Your task to perform on an android device: turn off priority inbox in the gmail app Image 0: 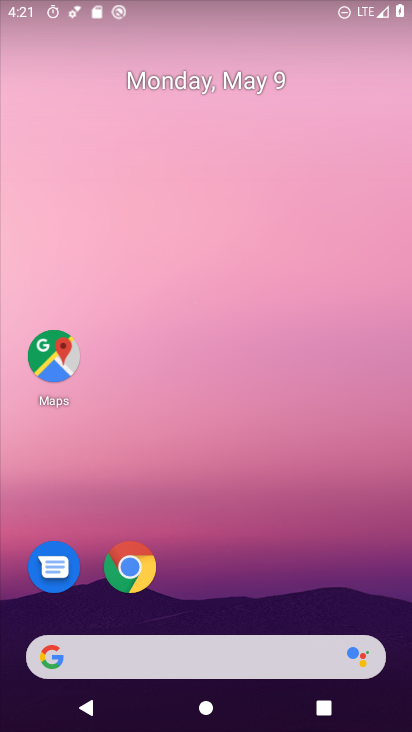
Step 0: drag from (226, 592) to (171, 106)
Your task to perform on an android device: turn off priority inbox in the gmail app Image 1: 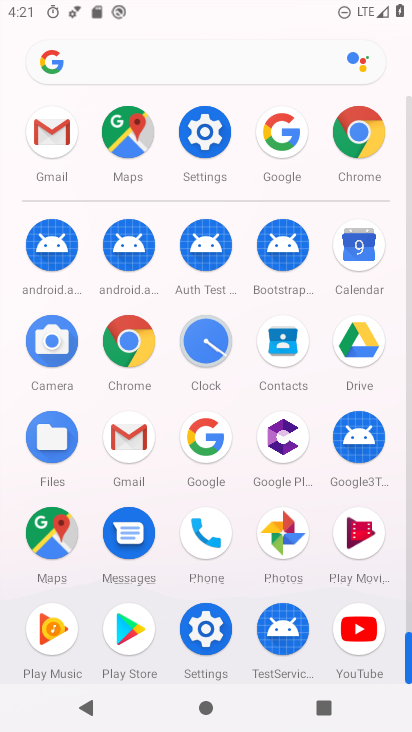
Step 1: click (56, 132)
Your task to perform on an android device: turn off priority inbox in the gmail app Image 2: 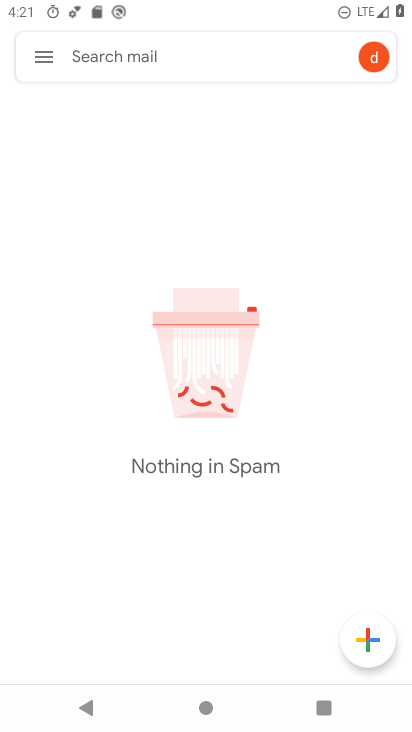
Step 2: click (51, 60)
Your task to perform on an android device: turn off priority inbox in the gmail app Image 3: 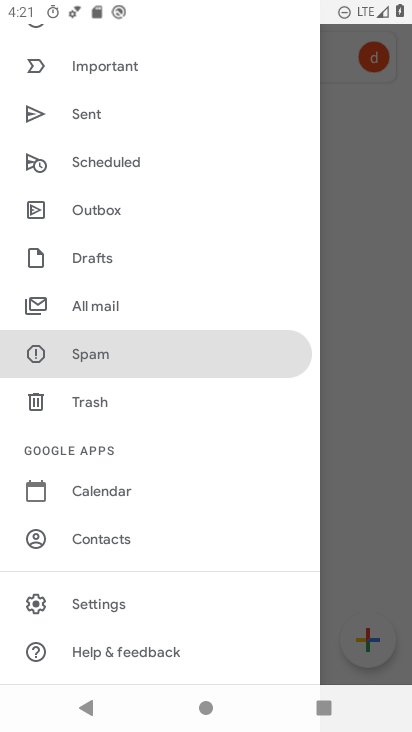
Step 3: click (130, 602)
Your task to perform on an android device: turn off priority inbox in the gmail app Image 4: 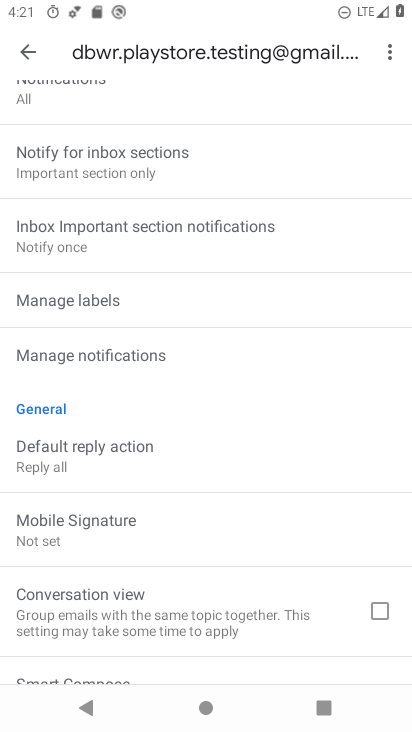
Step 4: drag from (228, 181) to (221, 614)
Your task to perform on an android device: turn off priority inbox in the gmail app Image 5: 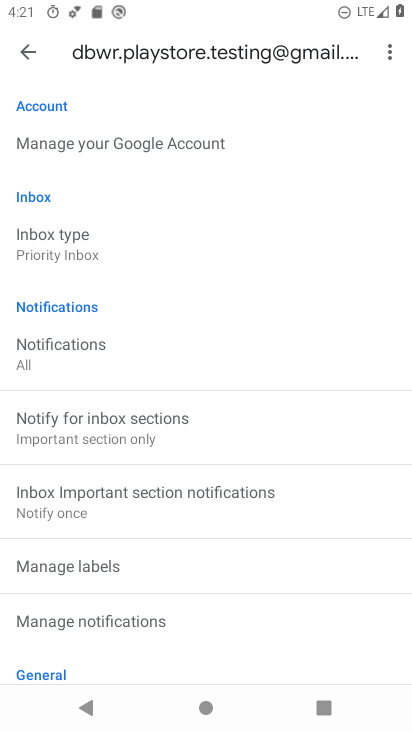
Step 5: click (37, 244)
Your task to perform on an android device: turn off priority inbox in the gmail app Image 6: 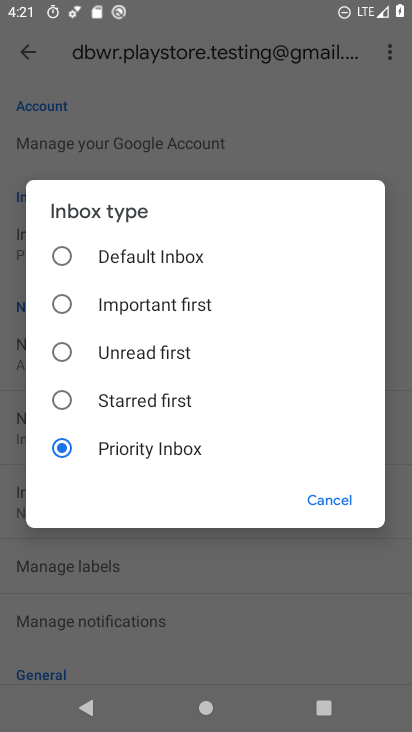
Step 6: click (62, 244)
Your task to perform on an android device: turn off priority inbox in the gmail app Image 7: 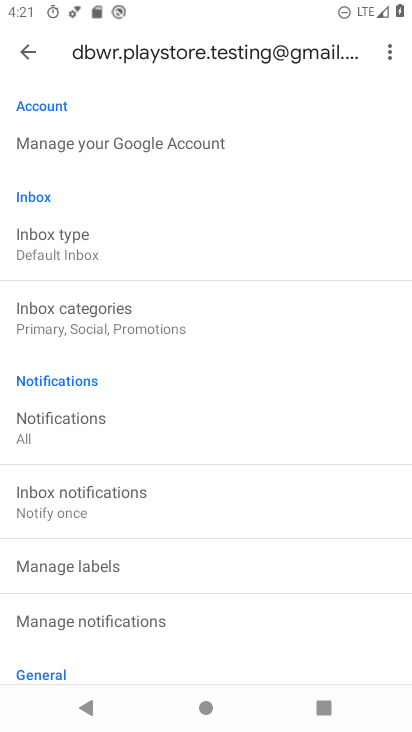
Step 7: task complete